Your task to perform on an android device: Open Google Chrome and click the shortcut for Amazon.com Image 0: 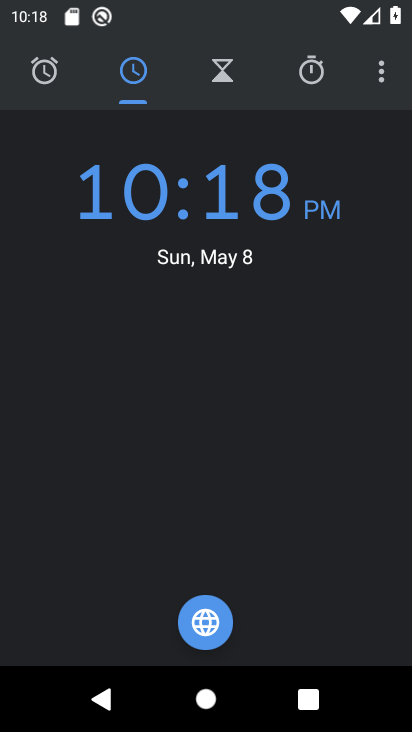
Step 0: press home button
Your task to perform on an android device: Open Google Chrome and click the shortcut for Amazon.com Image 1: 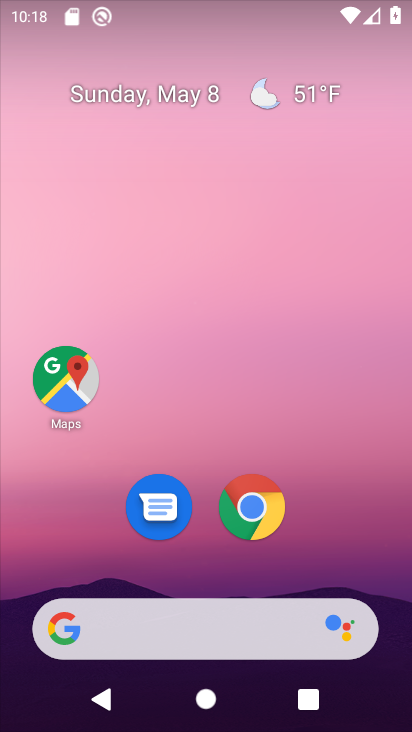
Step 1: click (249, 499)
Your task to perform on an android device: Open Google Chrome and click the shortcut for Amazon.com Image 2: 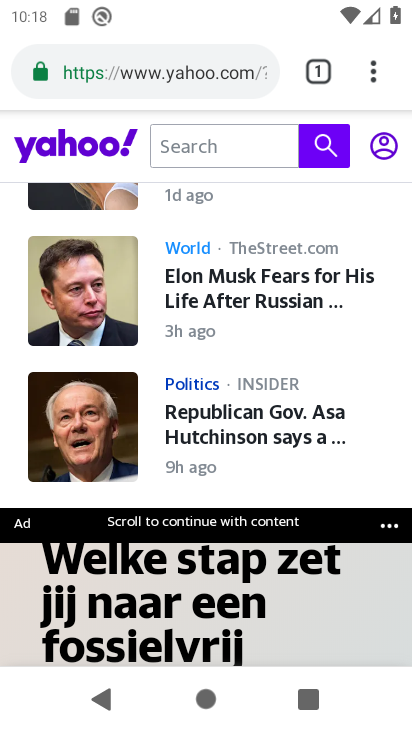
Step 2: click (371, 69)
Your task to perform on an android device: Open Google Chrome and click the shortcut for Amazon.com Image 3: 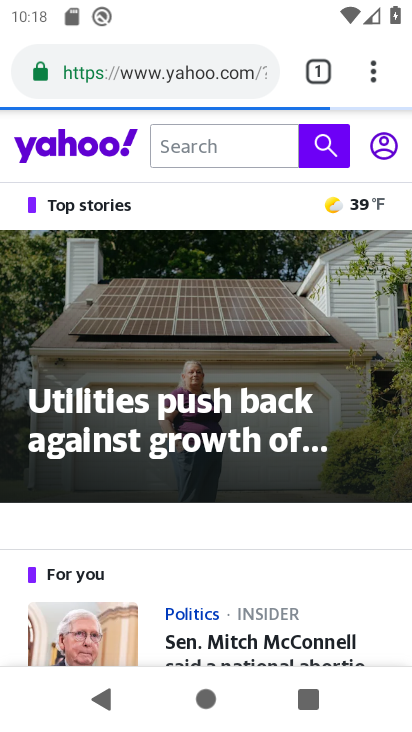
Step 3: click (371, 74)
Your task to perform on an android device: Open Google Chrome and click the shortcut for Amazon.com Image 4: 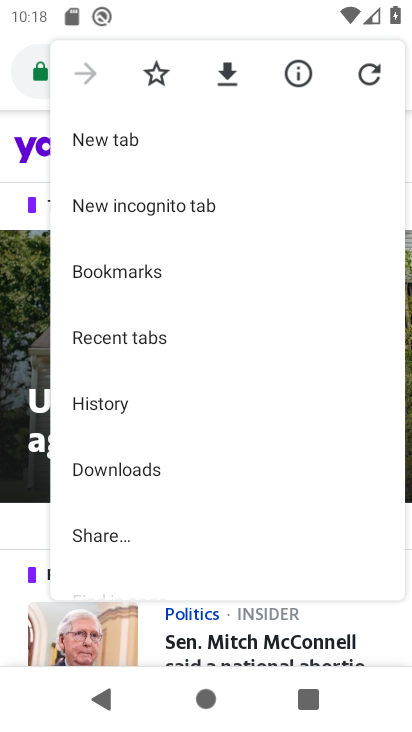
Step 4: click (28, 351)
Your task to perform on an android device: Open Google Chrome and click the shortcut for Amazon.com Image 5: 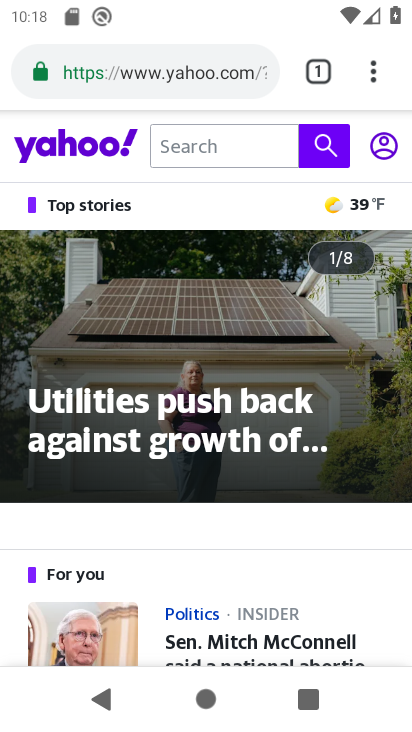
Step 5: click (314, 71)
Your task to perform on an android device: Open Google Chrome and click the shortcut for Amazon.com Image 6: 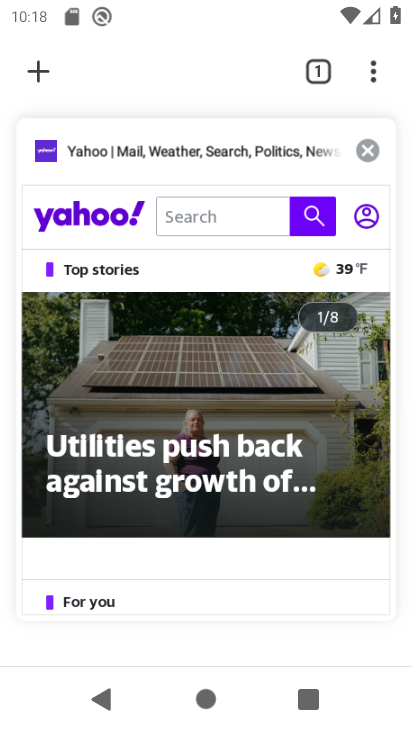
Step 6: click (36, 75)
Your task to perform on an android device: Open Google Chrome and click the shortcut for Amazon.com Image 7: 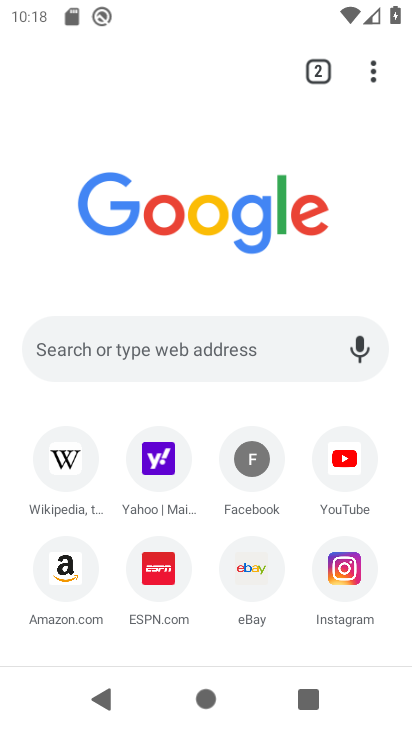
Step 7: click (65, 573)
Your task to perform on an android device: Open Google Chrome and click the shortcut for Amazon.com Image 8: 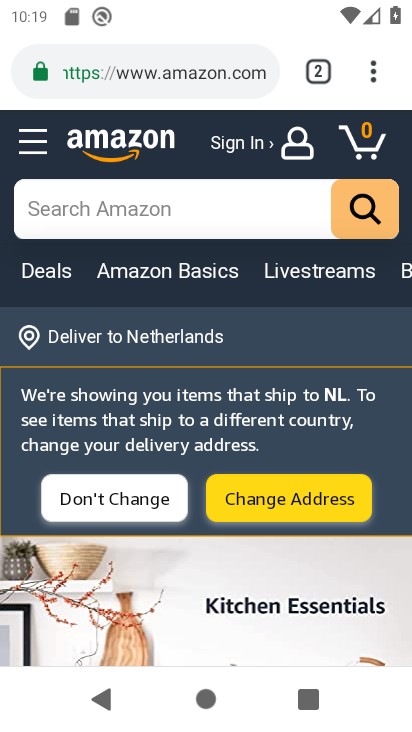
Step 8: task complete